Your task to perform on an android device: Do I have any events this weekend? Image 0: 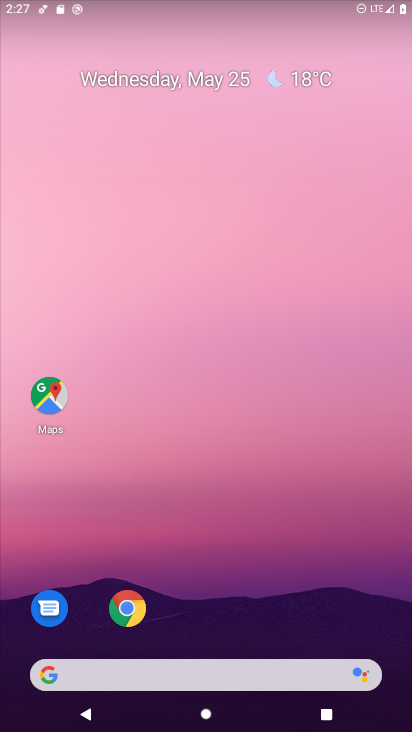
Step 0: drag from (372, 619) to (336, 57)
Your task to perform on an android device: Do I have any events this weekend? Image 1: 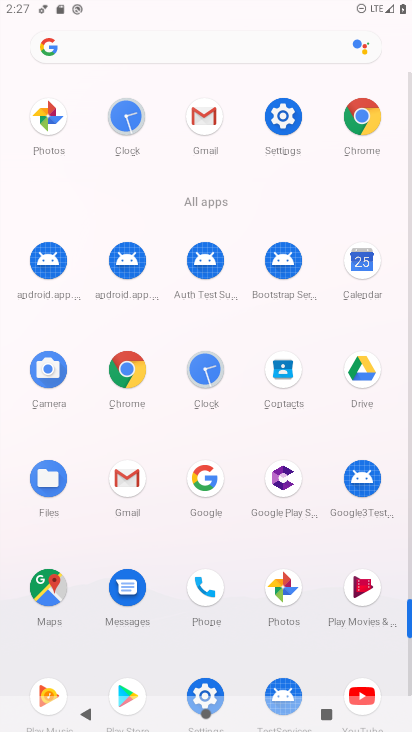
Step 1: click (369, 260)
Your task to perform on an android device: Do I have any events this weekend? Image 2: 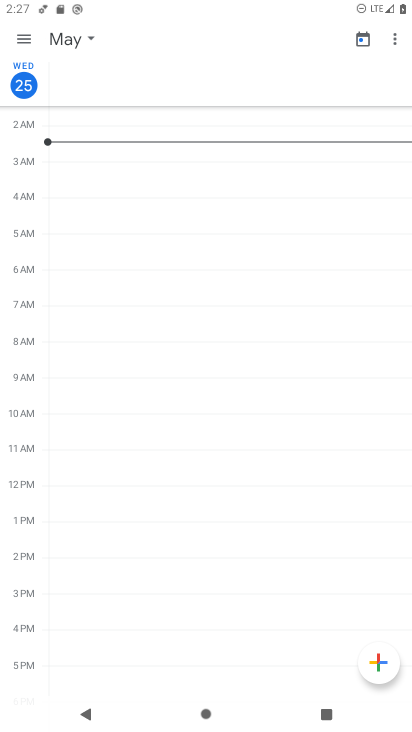
Step 2: click (21, 36)
Your task to perform on an android device: Do I have any events this weekend? Image 3: 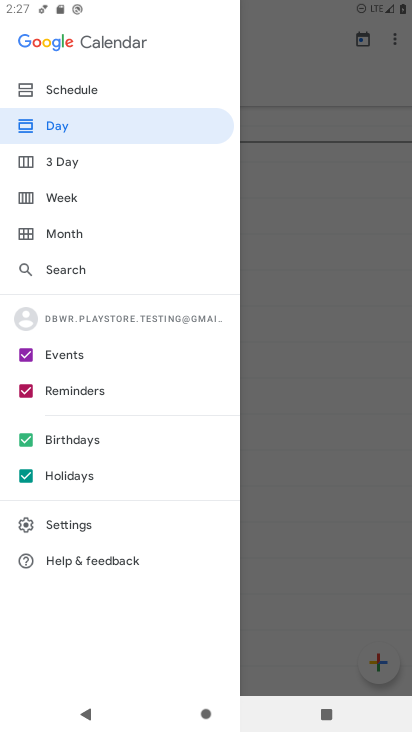
Step 3: click (56, 187)
Your task to perform on an android device: Do I have any events this weekend? Image 4: 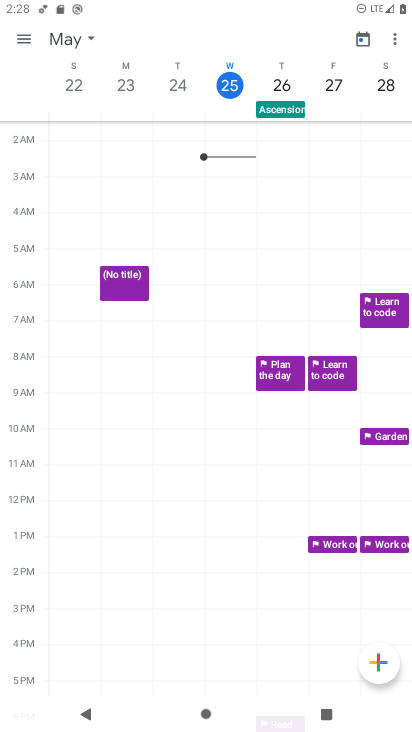
Step 4: task complete